Your task to perform on an android device: Open Wikipedia Image 0: 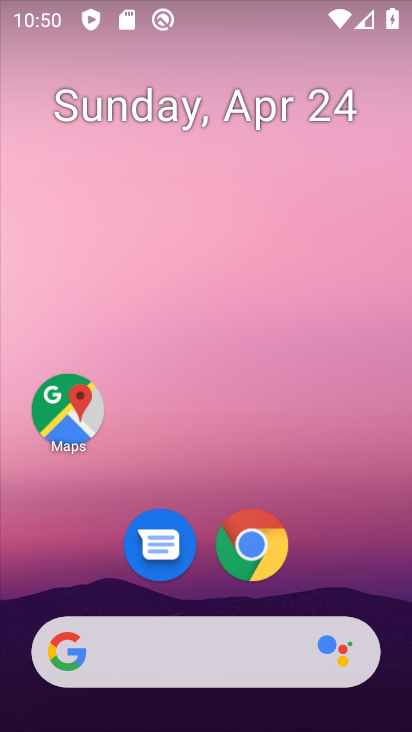
Step 0: drag from (263, 647) to (319, 144)
Your task to perform on an android device: Open Wikipedia Image 1: 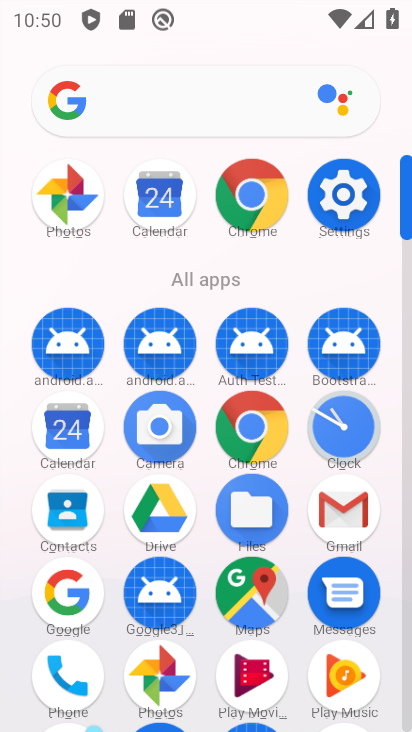
Step 1: click (242, 212)
Your task to perform on an android device: Open Wikipedia Image 2: 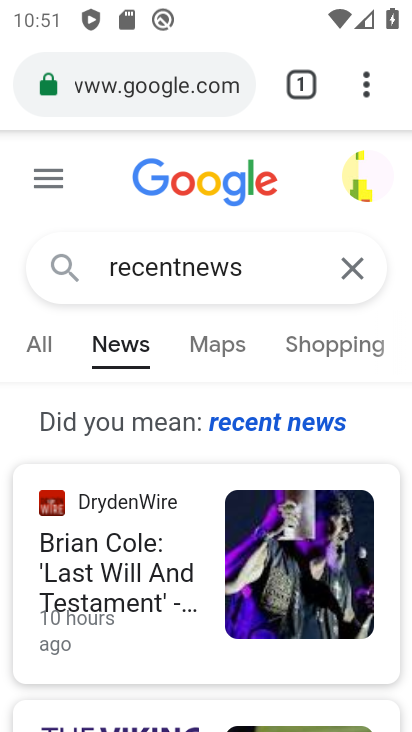
Step 2: click (210, 91)
Your task to perform on an android device: Open Wikipedia Image 3: 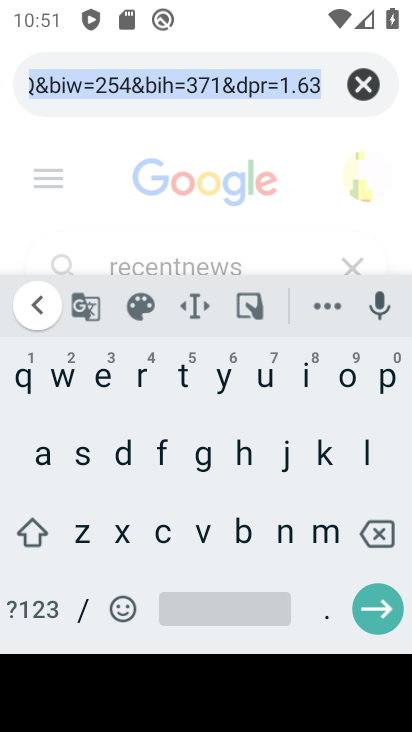
Step 3: click (361, 84)
Your task to perform on an android device: Open Wikipedia Image 4: 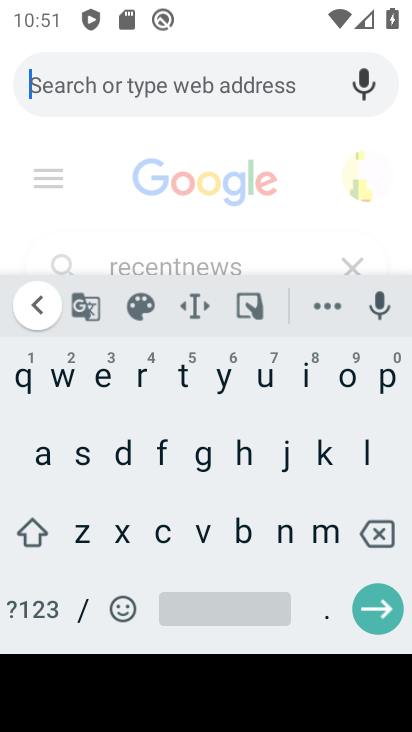
Step 4: click (71, 377)
Your task to perform on an android device: Open Wikipedia Image 5: 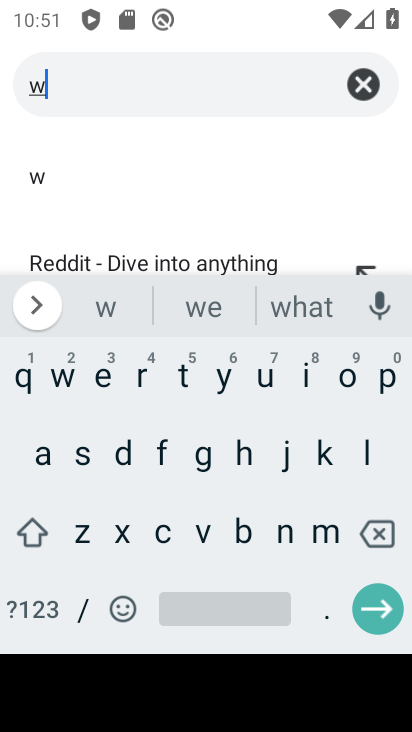
Step 5: click (301, 379)
Your task to perform on an android device: Open Wikipedia Image 6: 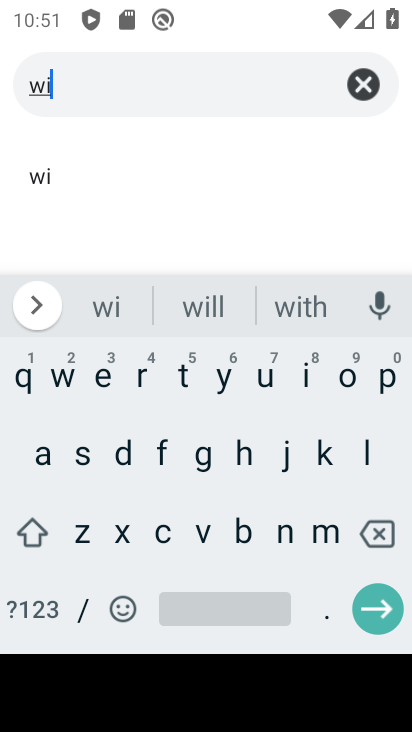
Step 6: click (321, 446)
Your task to perform on an android device: Open Wikipedia Image 7: 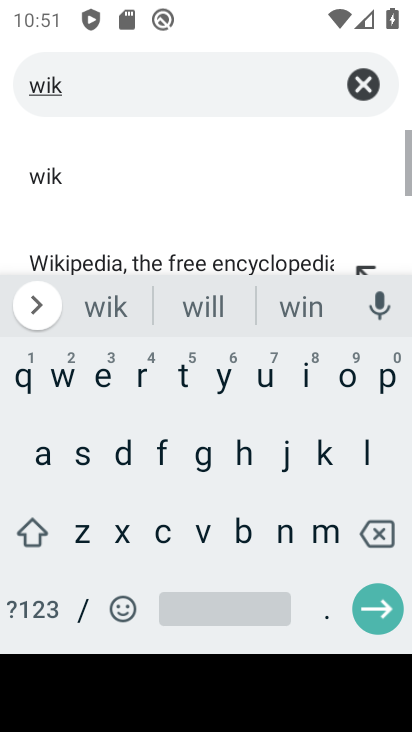
Step 7: click (306, 375)
Your task to perform on an android device: Open Wikipedia Image 8: 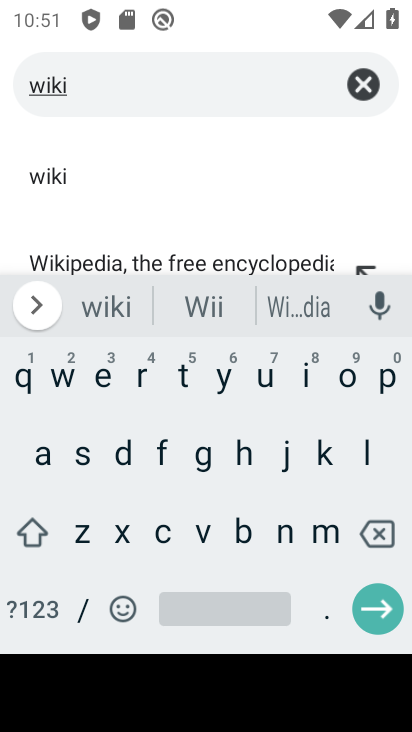
Step 8: click (377, 379)
Your task to perform on an android device: Open Wikipedia Image 9: 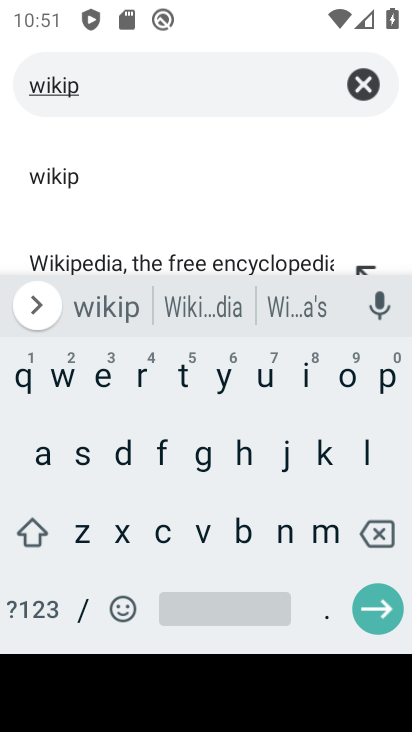
Step 9: click (221, 308)
Your task to perform on an android device: Open Wikipedia Image 10: 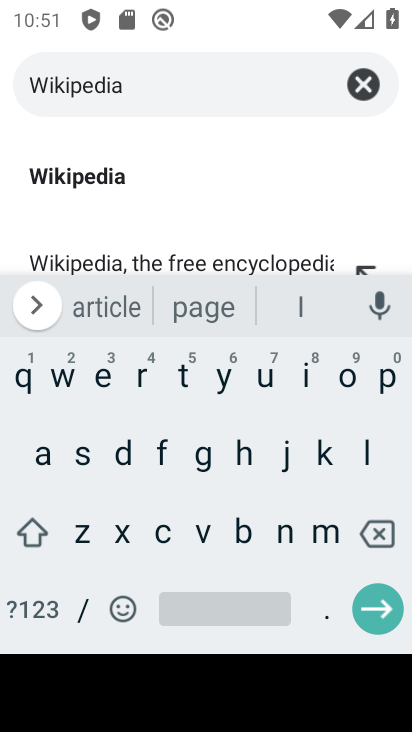
Step 10: click (381, 619)
Your task to perform on an android device: Open Wikipedia Image 11: 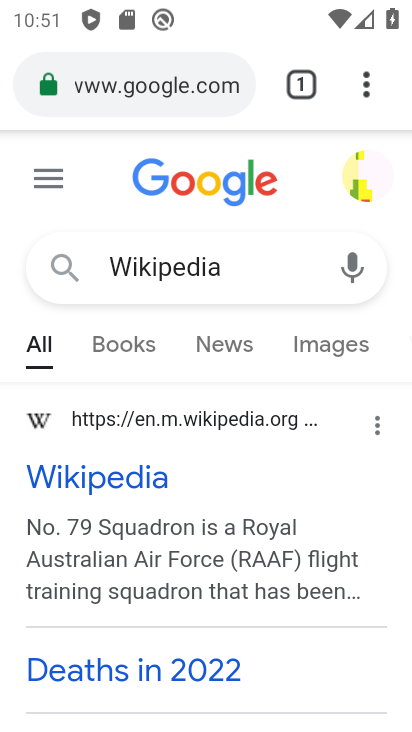
Step 11: click (134, 489)
Your task to perform on an android device: Open Wikipedia Image 12: 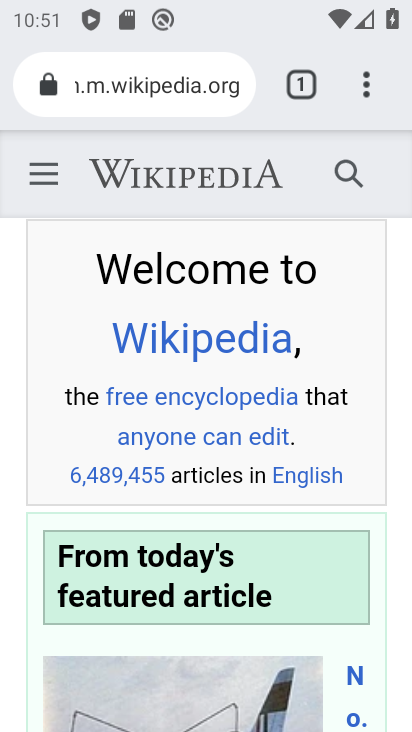
Step 12: task complete